Your task to perform on an android device: Open calendar and show me the second week of next month Image 0: 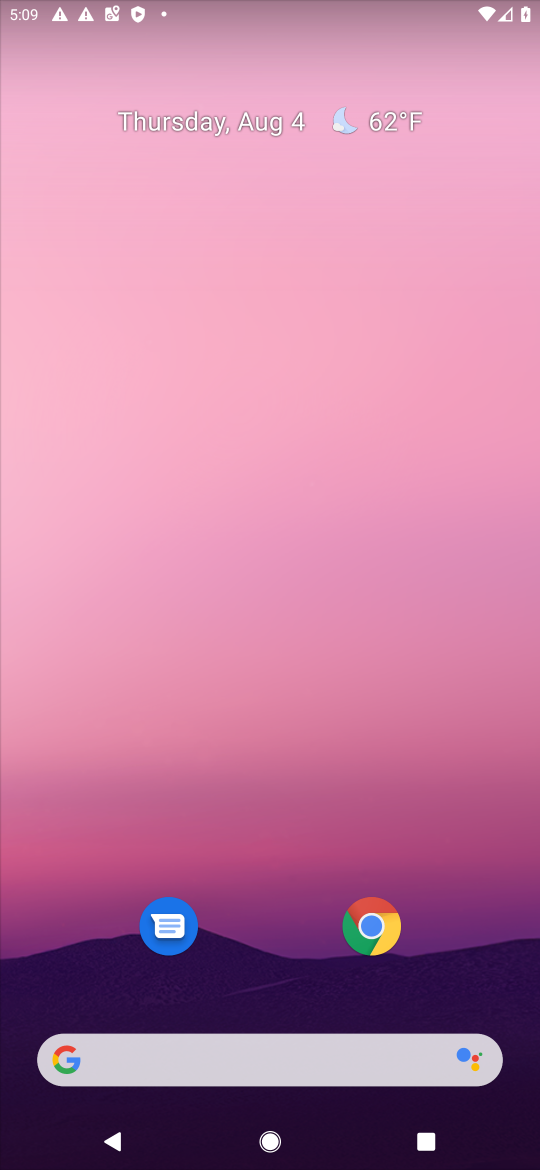
Step 0: press home button
Your task to perform on an android device: Open calendar and show me the second week of next month Image 1: 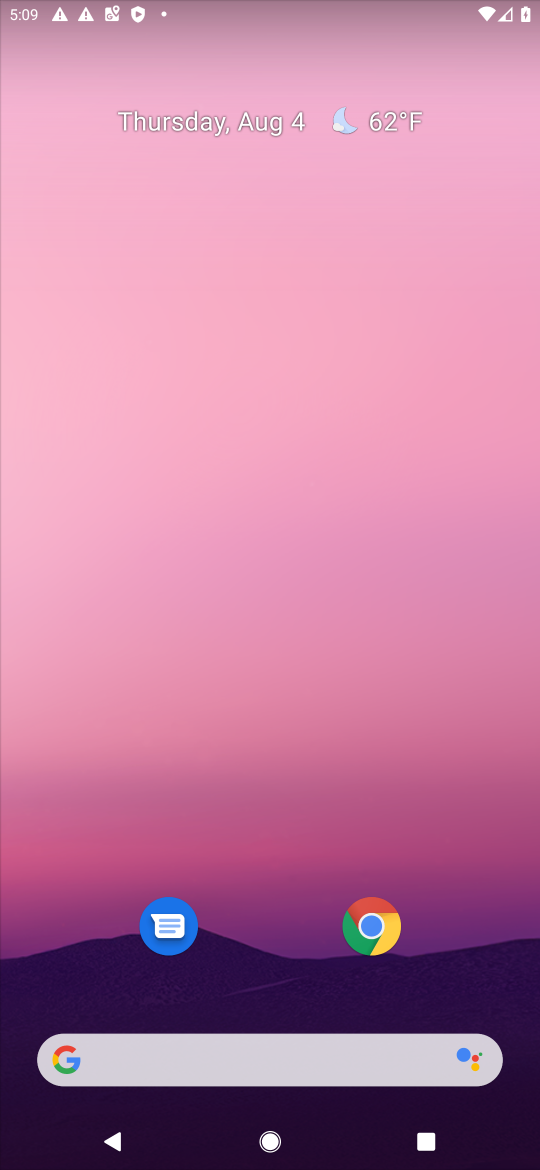
Step 1: drag from (248, 1013) to (416, 226)
Your task to perform on an android device: Open calendar and show me the second week of next month Image 2: 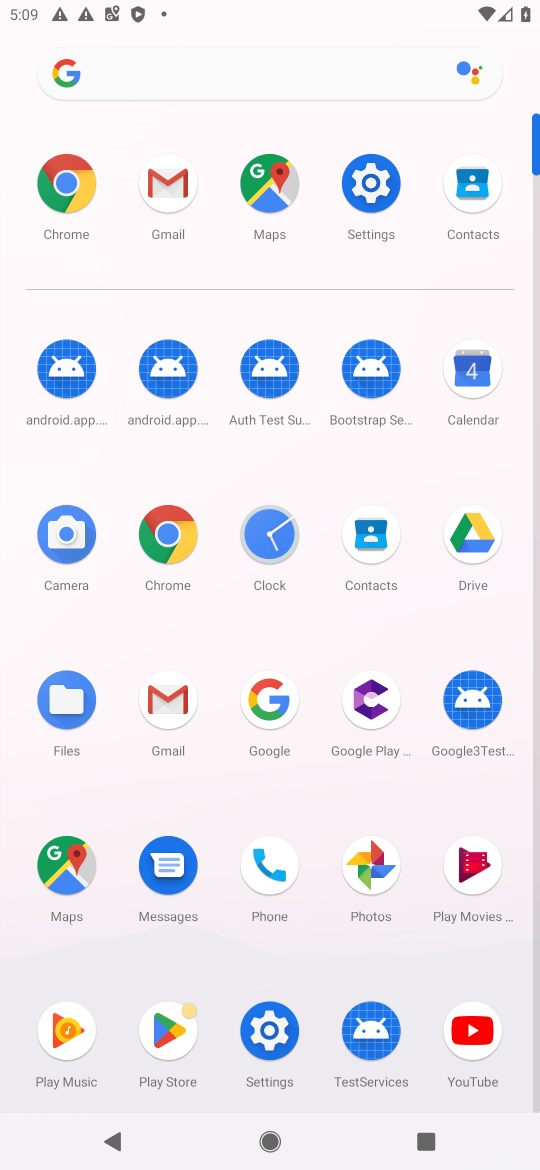
Step 2: click (470, 375)
Your task to perform on an android device: Open calendar and show me the second week of next month Image 3: 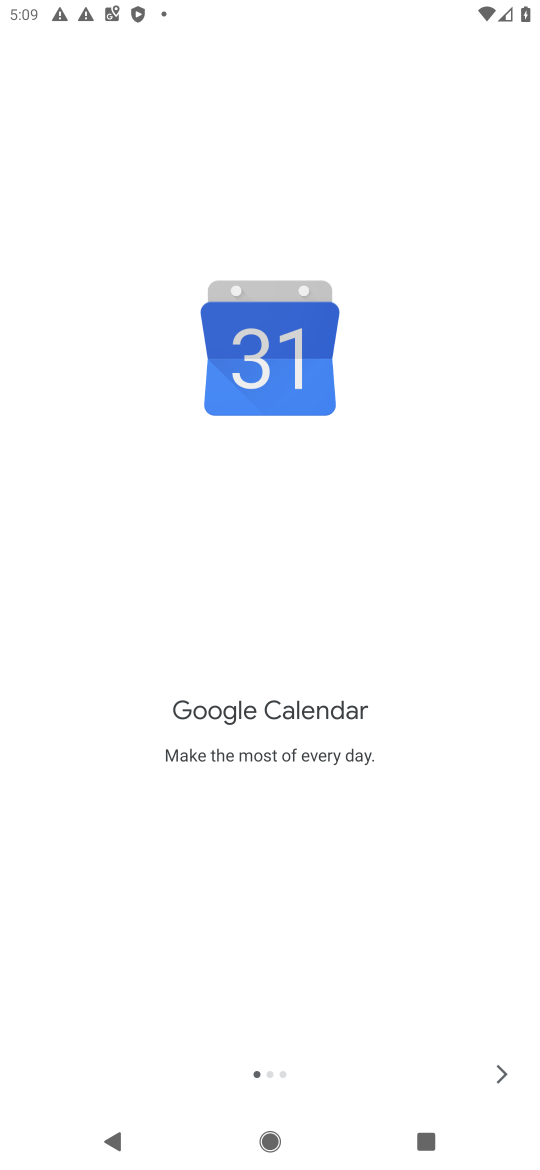
Step 3: click (499, 1069)
Your task to perform on an android device: Open calendar and show me the second week of next month Image 4: 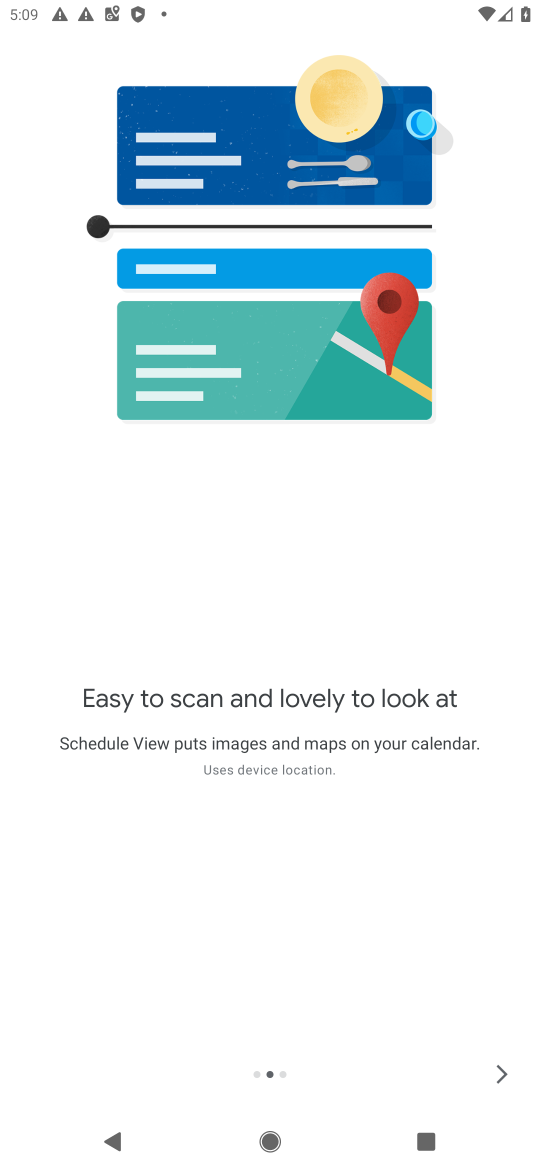
Step 4: click (499, 1067)
Your task to perform on an android device: Open calendar and show me the second week of next month Image 5: 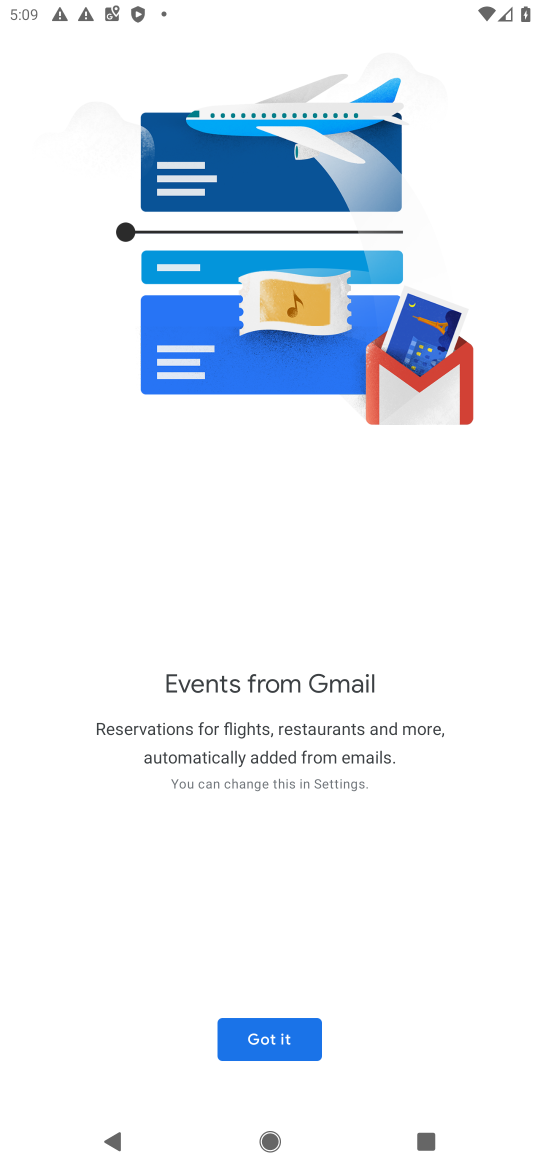
Step 5: click (256, 1044)
Your task to perform on an android device: Open calendar and show me the second week of next month Image 6: 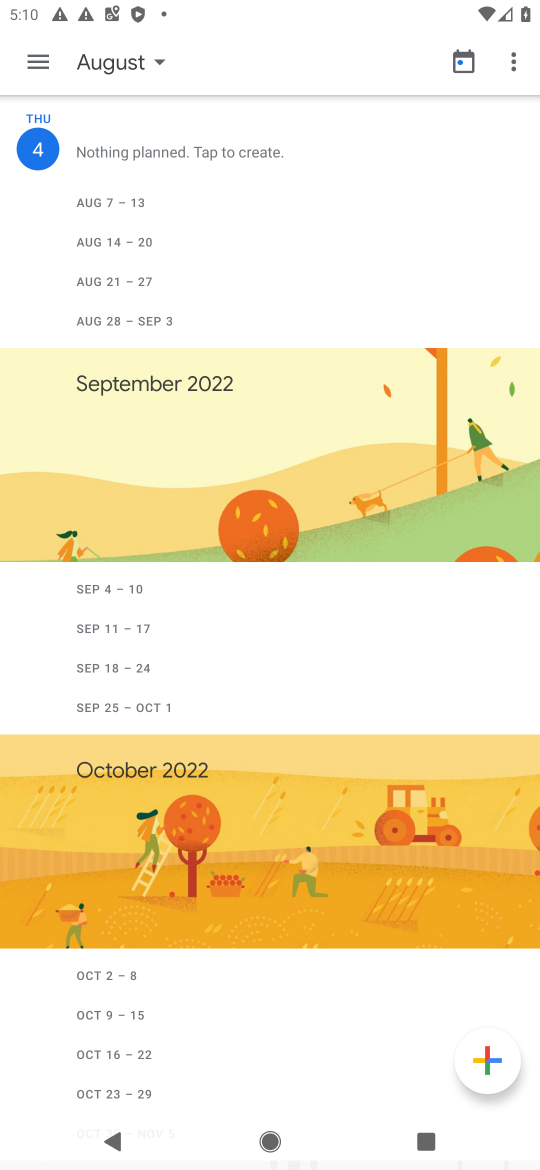
Step 6: click (154, 67)
Your task to perform on an android device: Open calendar and show me the second week of next month Image 7: 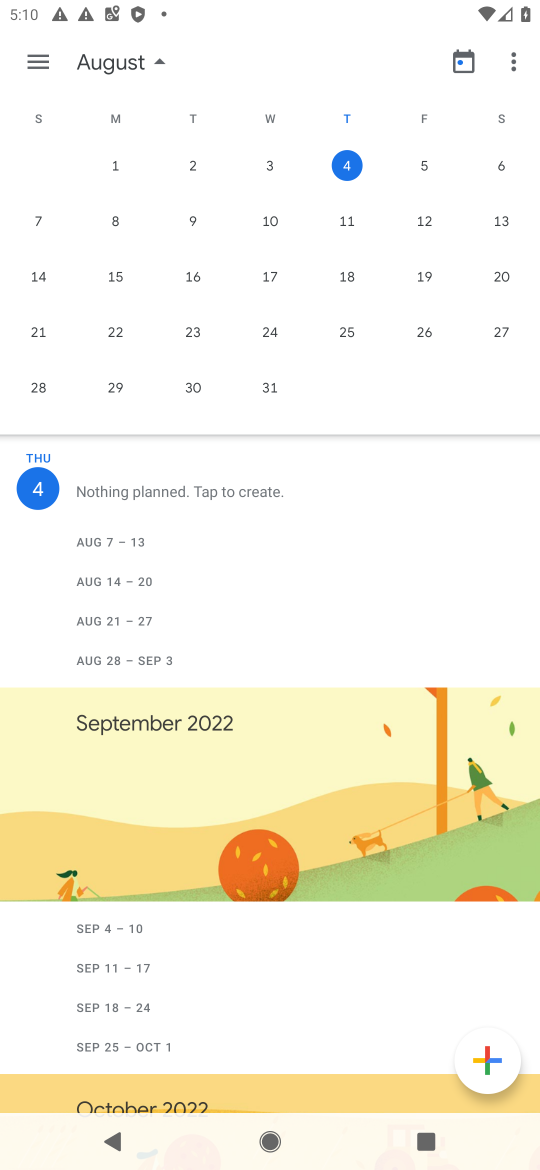
Step 7: drag from (449, 257) to (43, 246)
Your task to perform on an android device: Open calendar and show me the second week of next month Image 8: 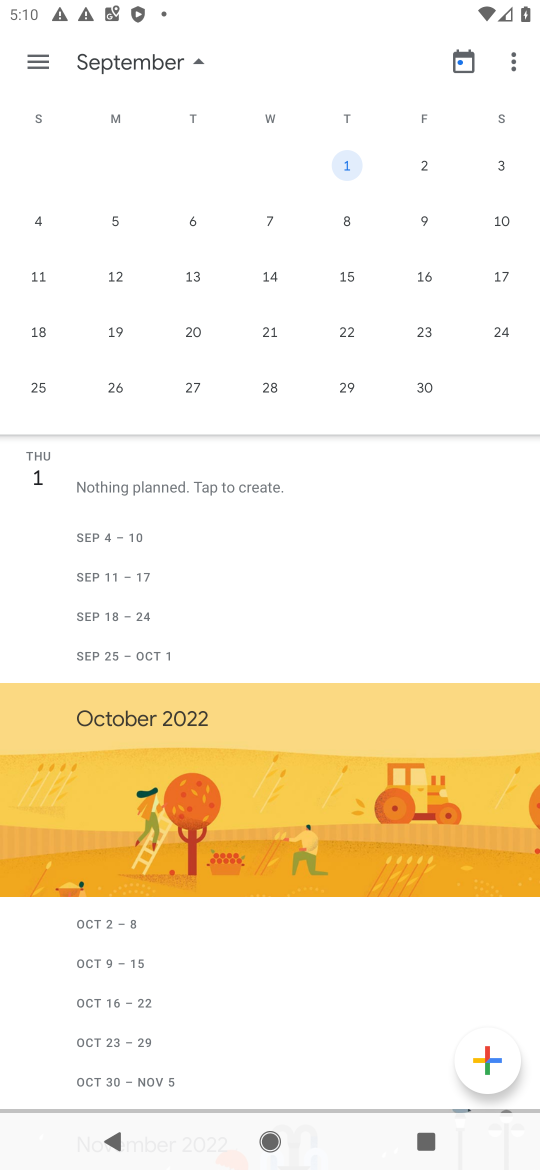
Step 8: click (42, 227)
Your task to perform on an android device: Open calendar and show me the second week of next month Image 9: 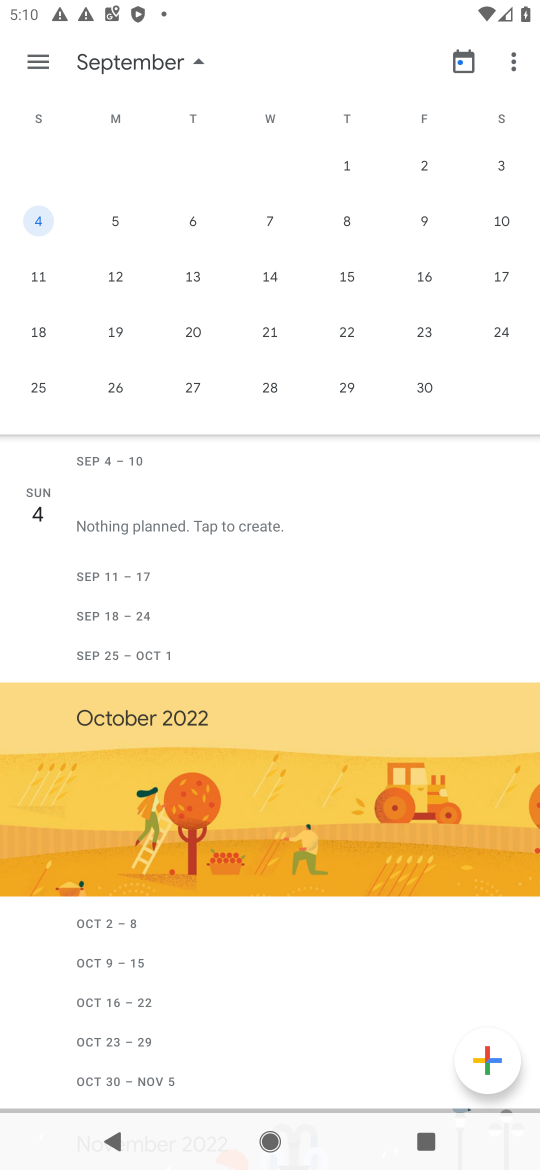
Step 9: click (116, 223)
Your task to perform on an android device: Open calendar and show me the second week of next month Image 10: 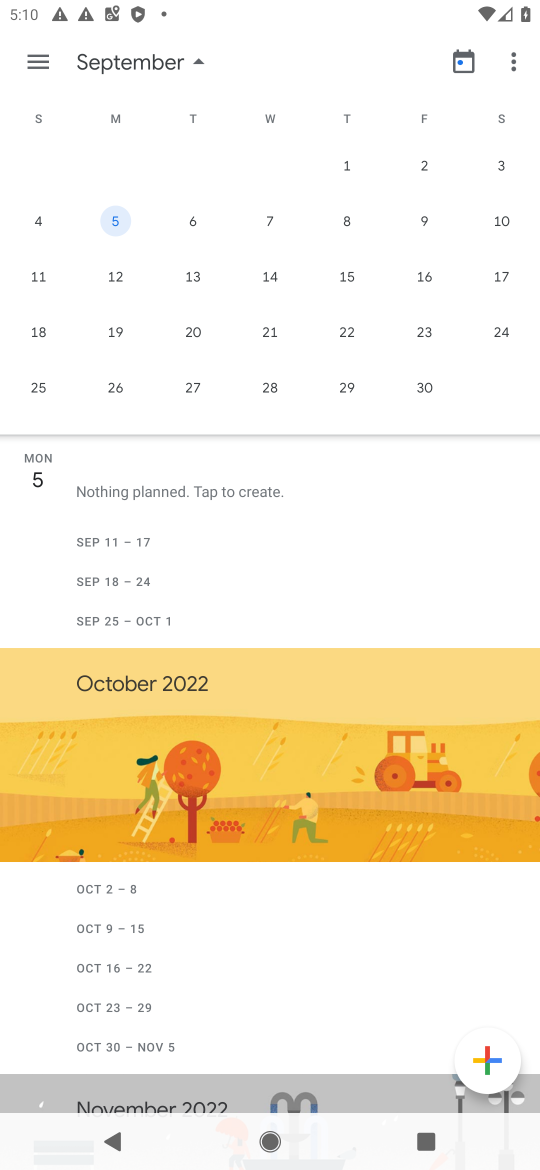
Step 10: click (193, 223)
Your task to perform on an android device: Open calendar and show me the second week of next month Image 11: 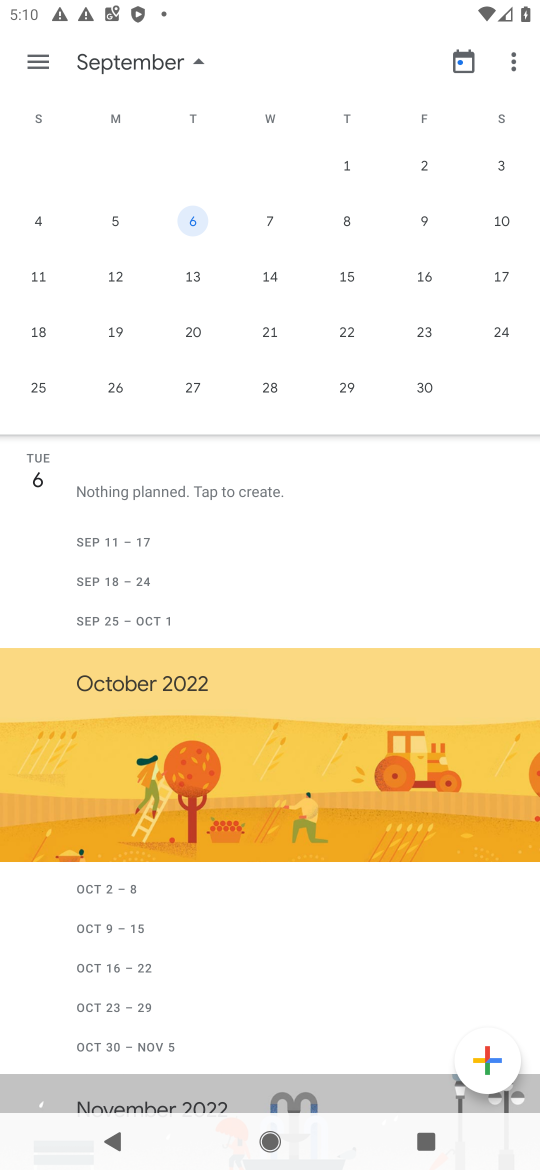
Step 11: click (273, 220)
Your task to perform on an android device: Open calendar and show me the second week of next month Image 12: 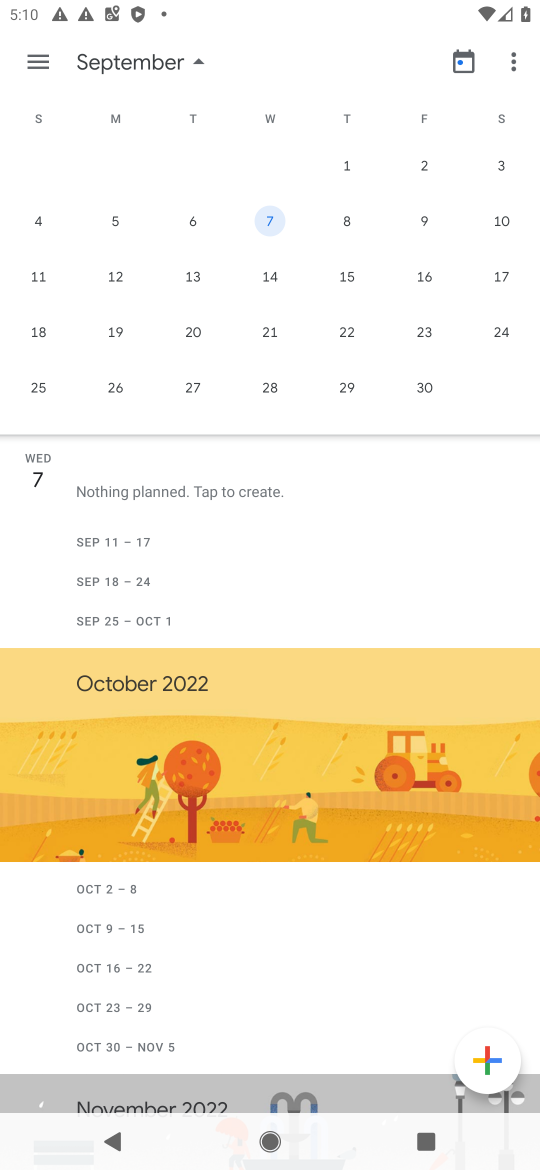
Step 12: click (354, 222)
Your task to perform on an android device: Open calendar and show me the second week of next month Image 13: 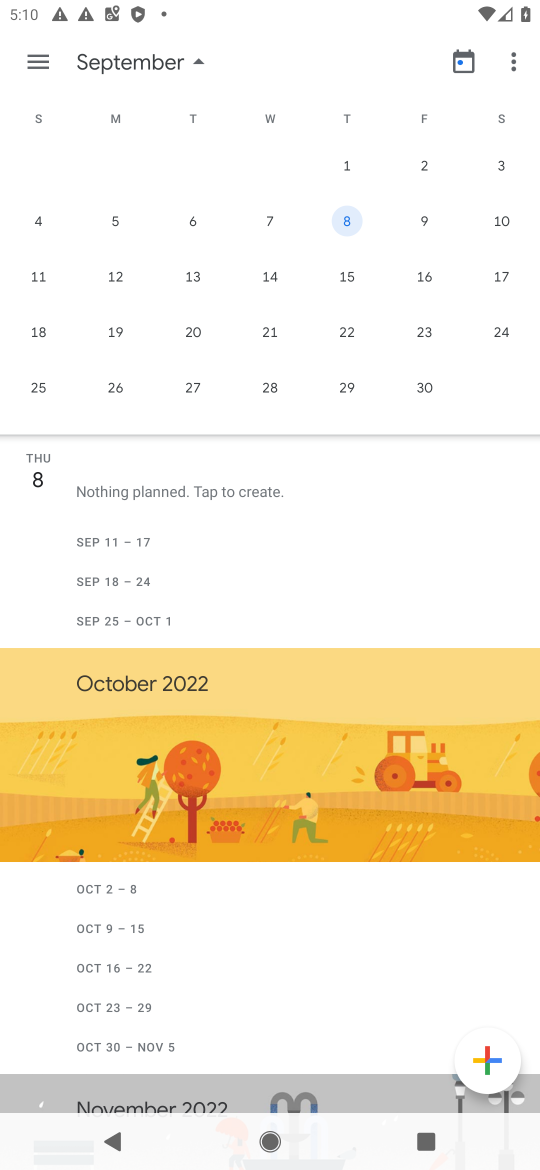
Step 13: click (429, 222)
Your task to perform on an android device: Open calendar and show me the second week of next month Image 14: 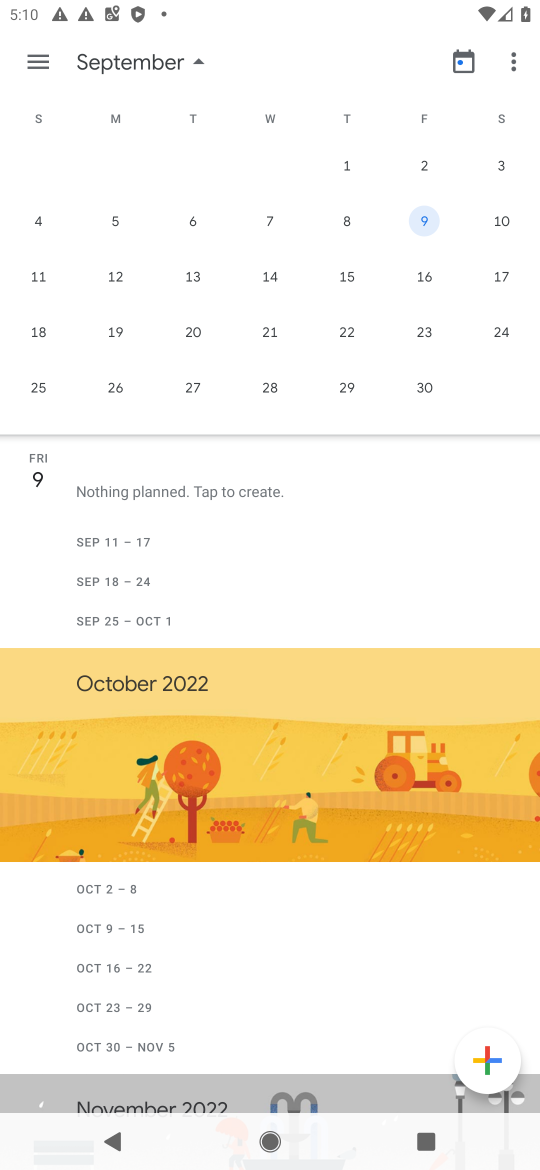
Step 14: click (505, 220)
Your task to perform on an android device: Open calendar and show me the second week of next month Image 15: 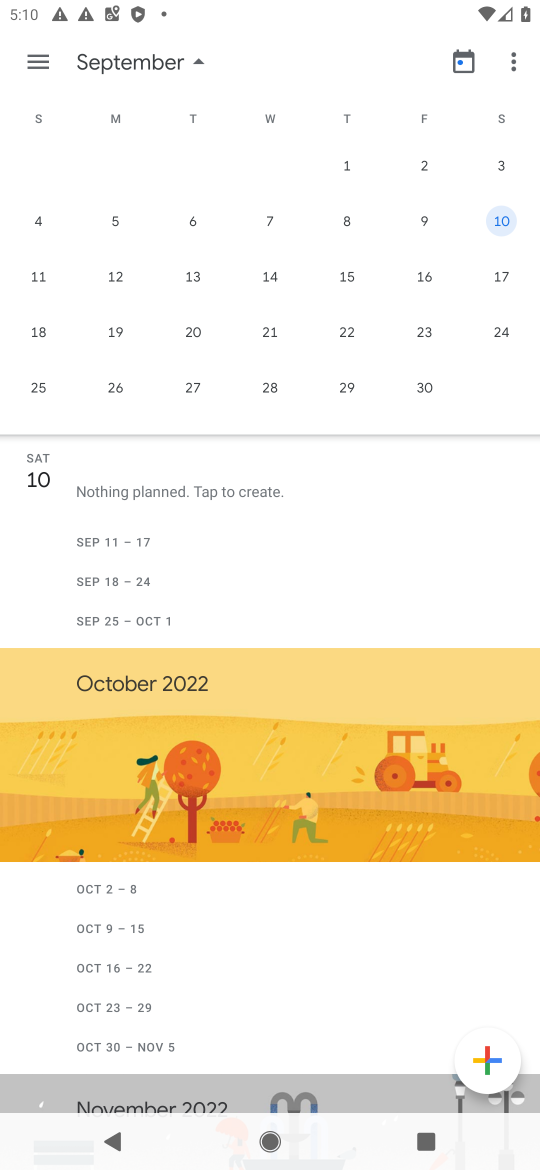
Step 15: task complete